Your task to perform on an android device: change the clock display to digital Image 0: 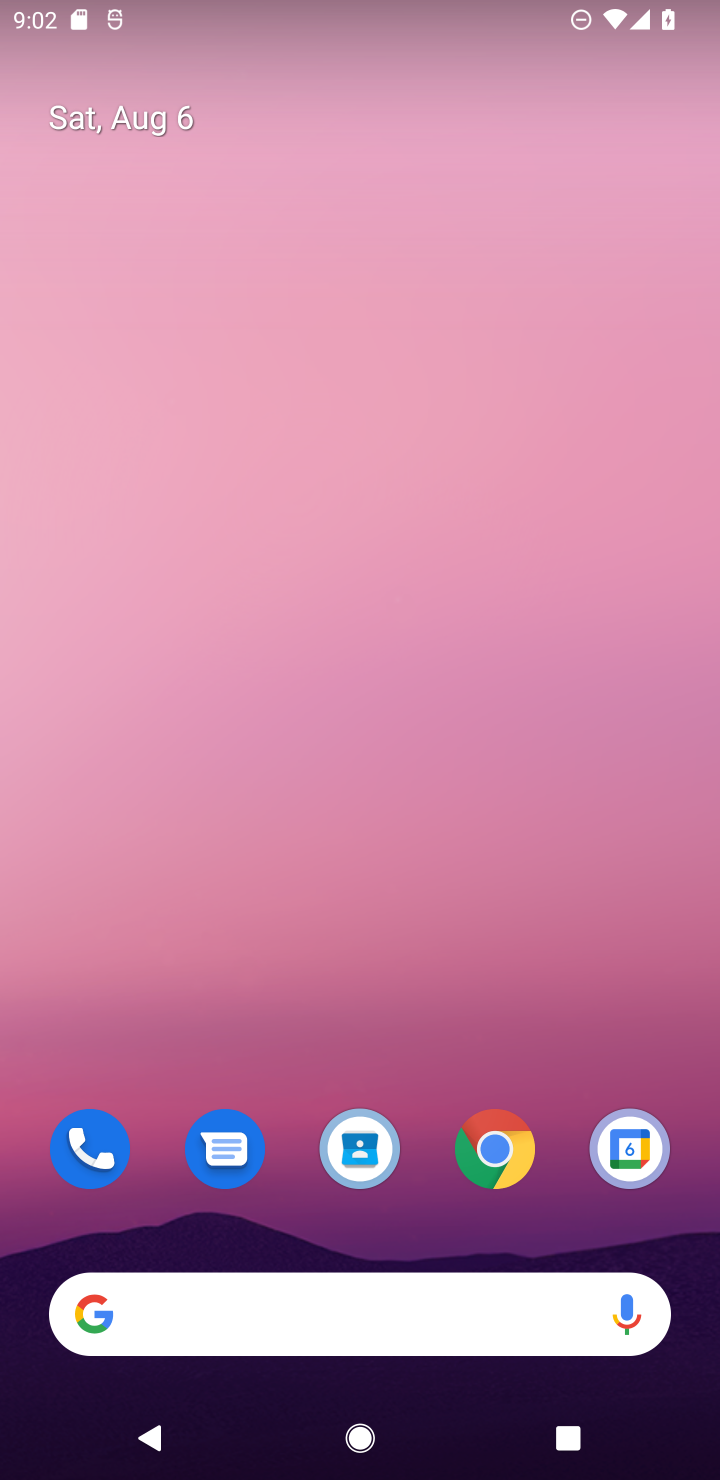
Step 0: drag from (332, 1080) to (311, 342)
Your task to perform on an android device: change the clock display to digital Image 1: 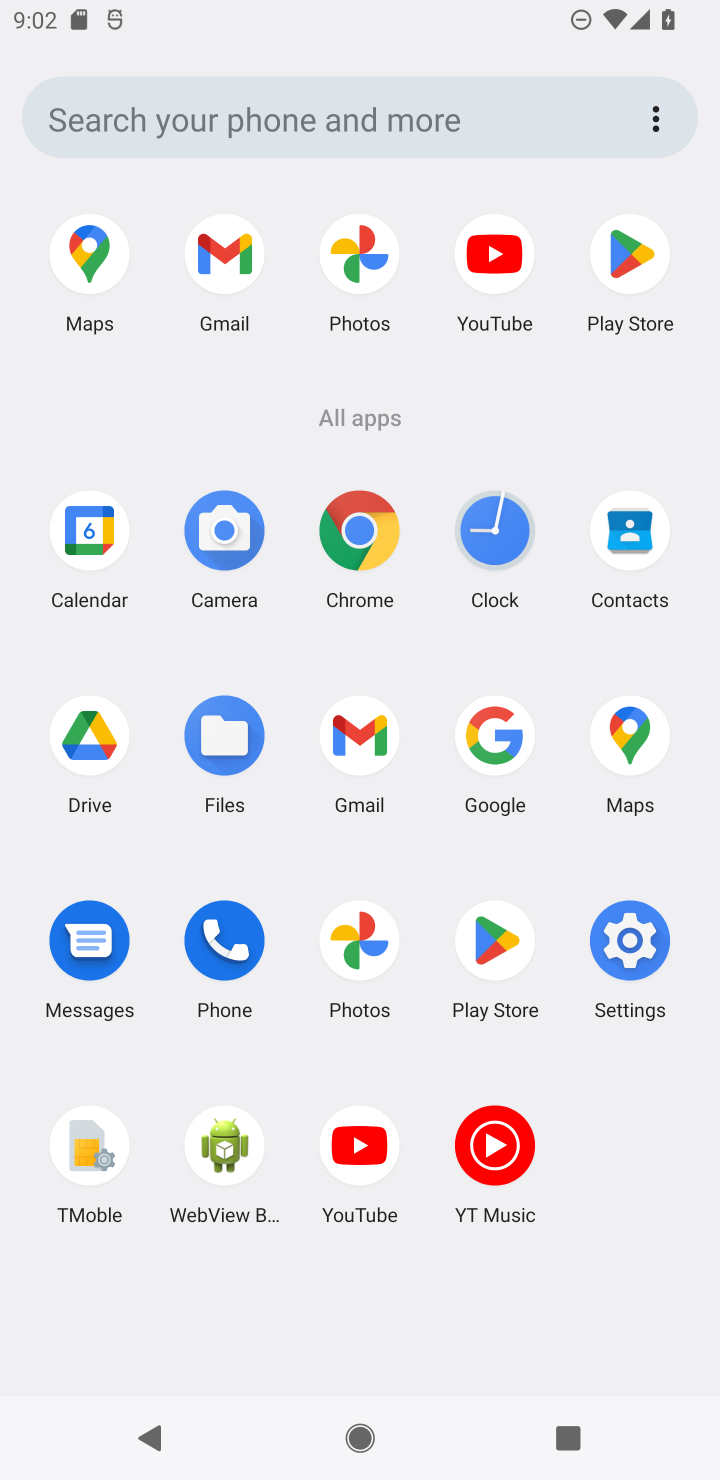
Step 1: click (497, 534)
Your task to perform on an android device: change the clock display to digital Image 2: 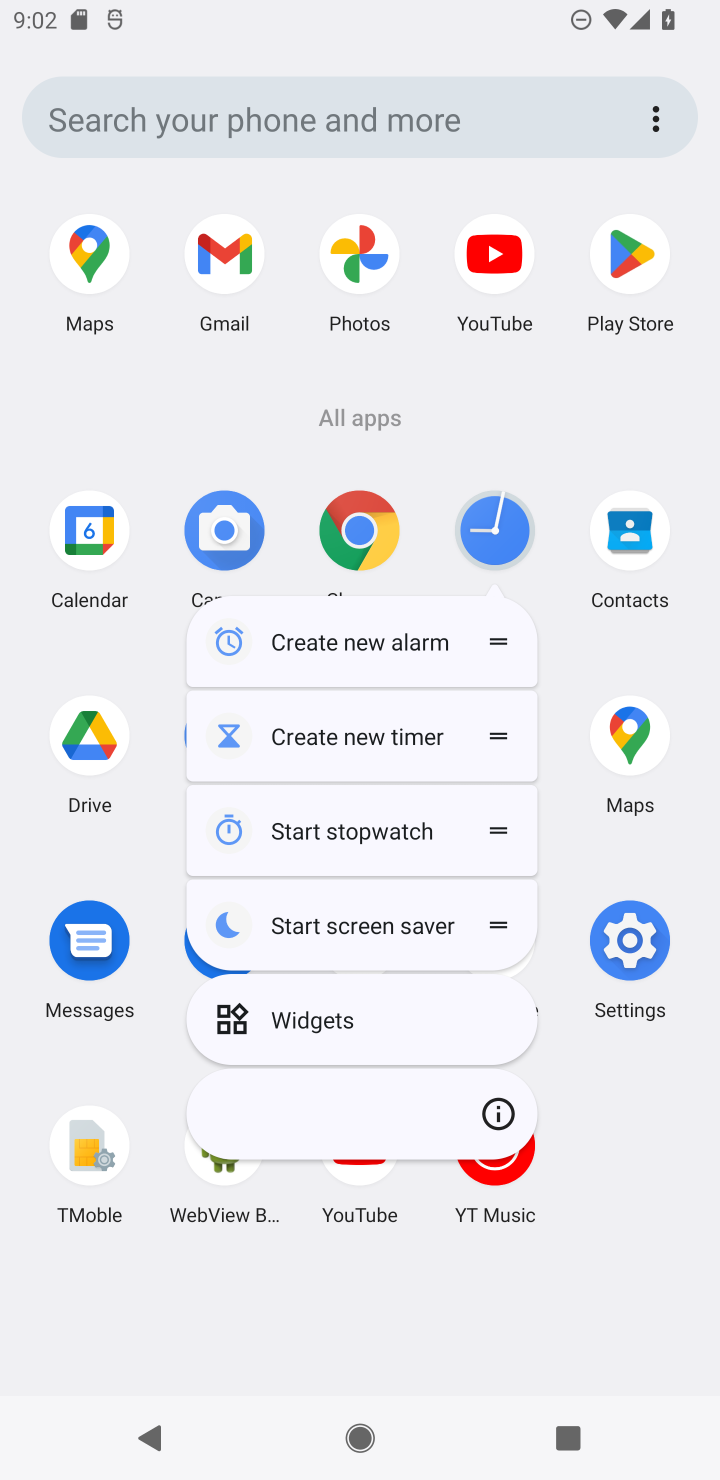
Step 2: click (497, 534)
Your task to perform on an android device: change the clock display to digital Image 3: 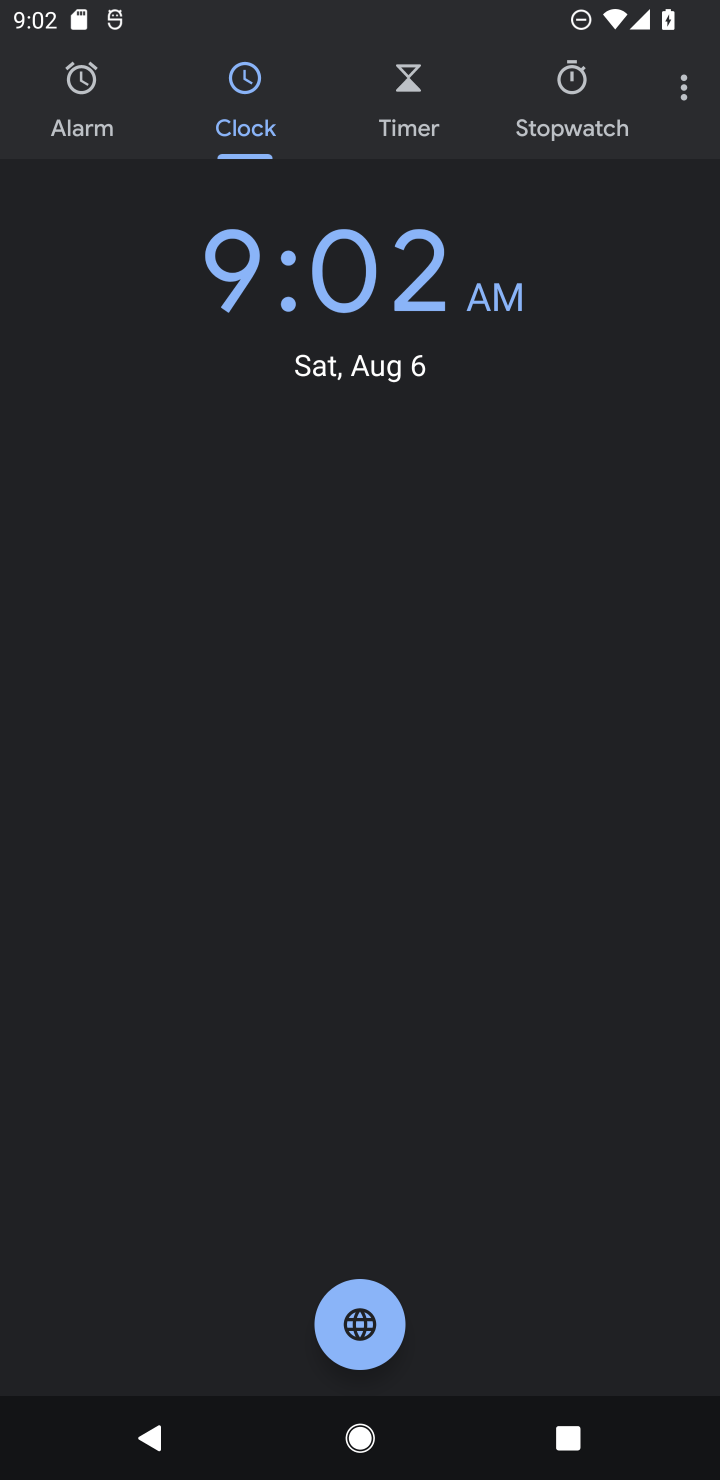
Step 3: click (680, 114)
Your task to perform on an android device: change the clock display to digital Image 4: 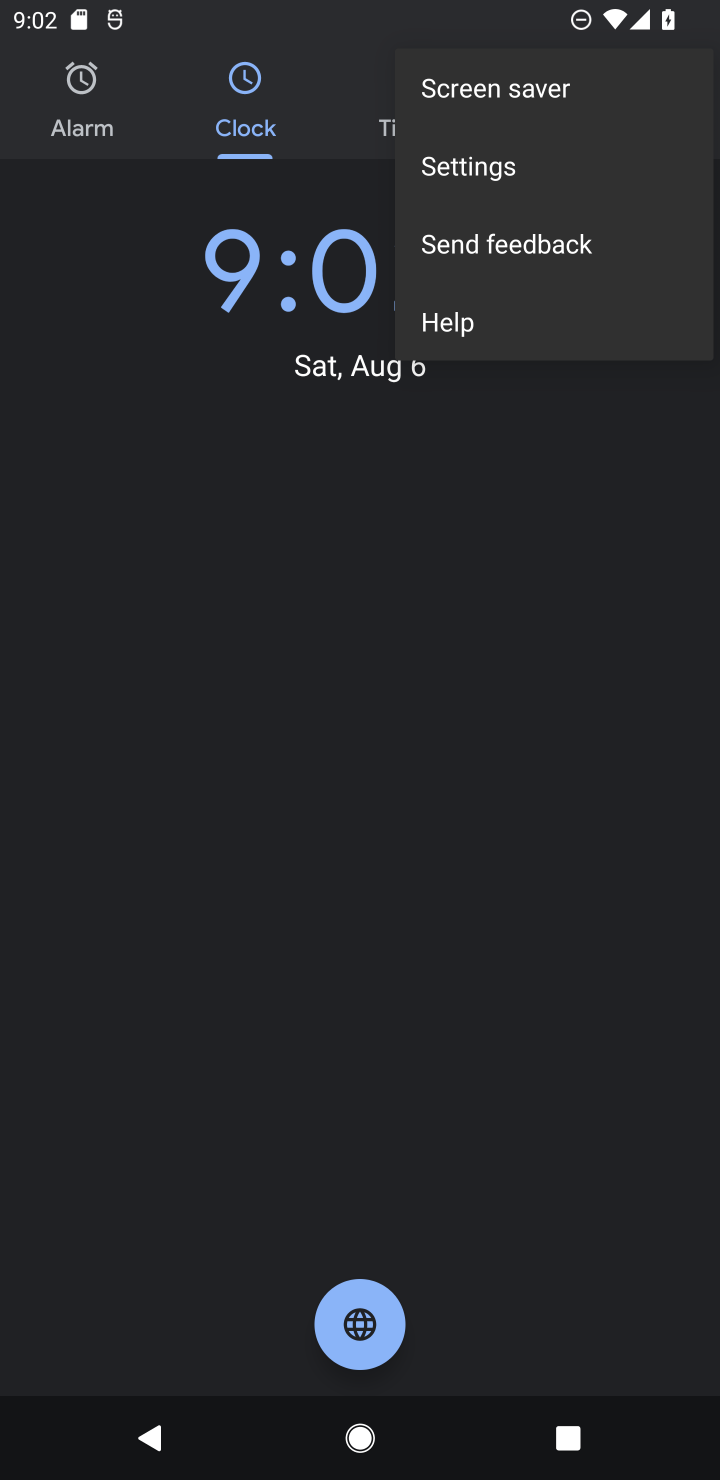
Step 4: click (484, 172)
Your task to perform on an android device: change the clock display to digital Image 5: 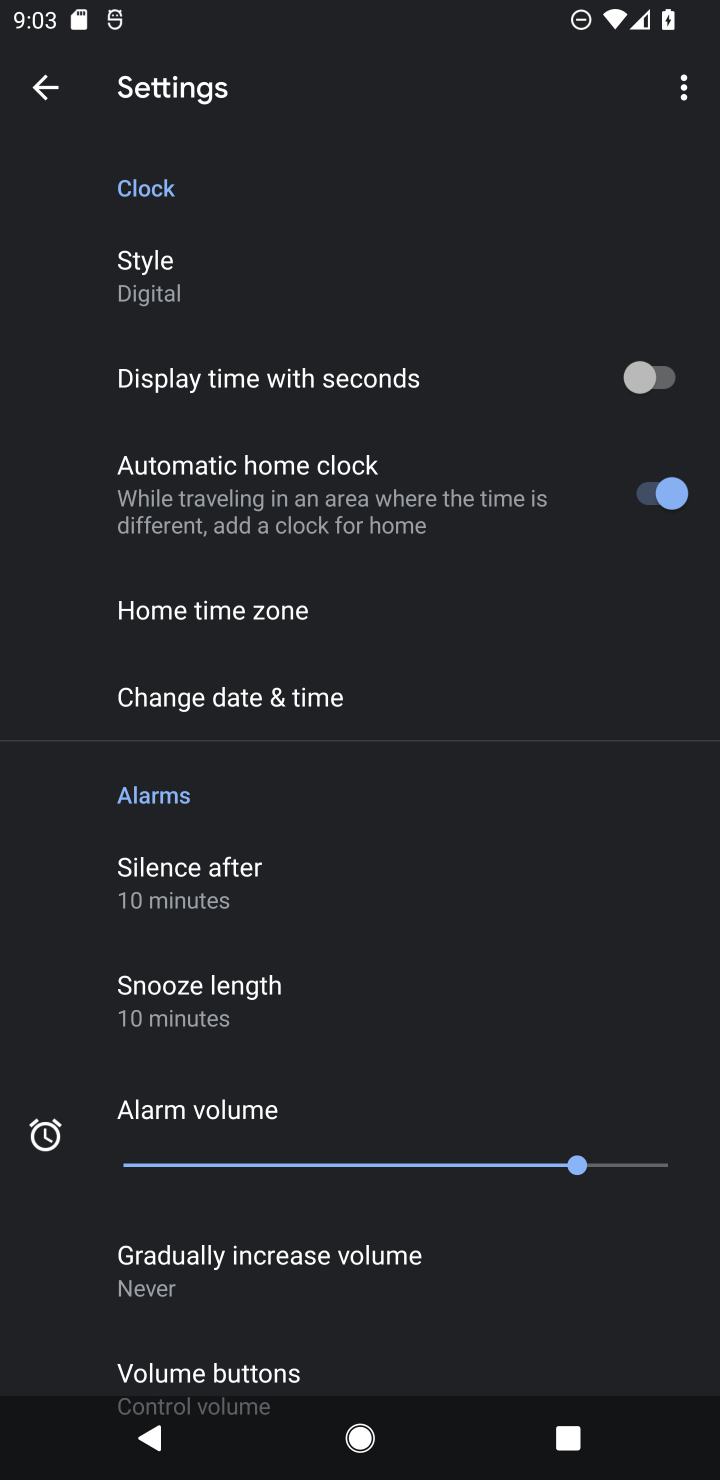
Step 5: click (164, 290)
Your task to perform on an android device: change the clock display to digital Image 6: 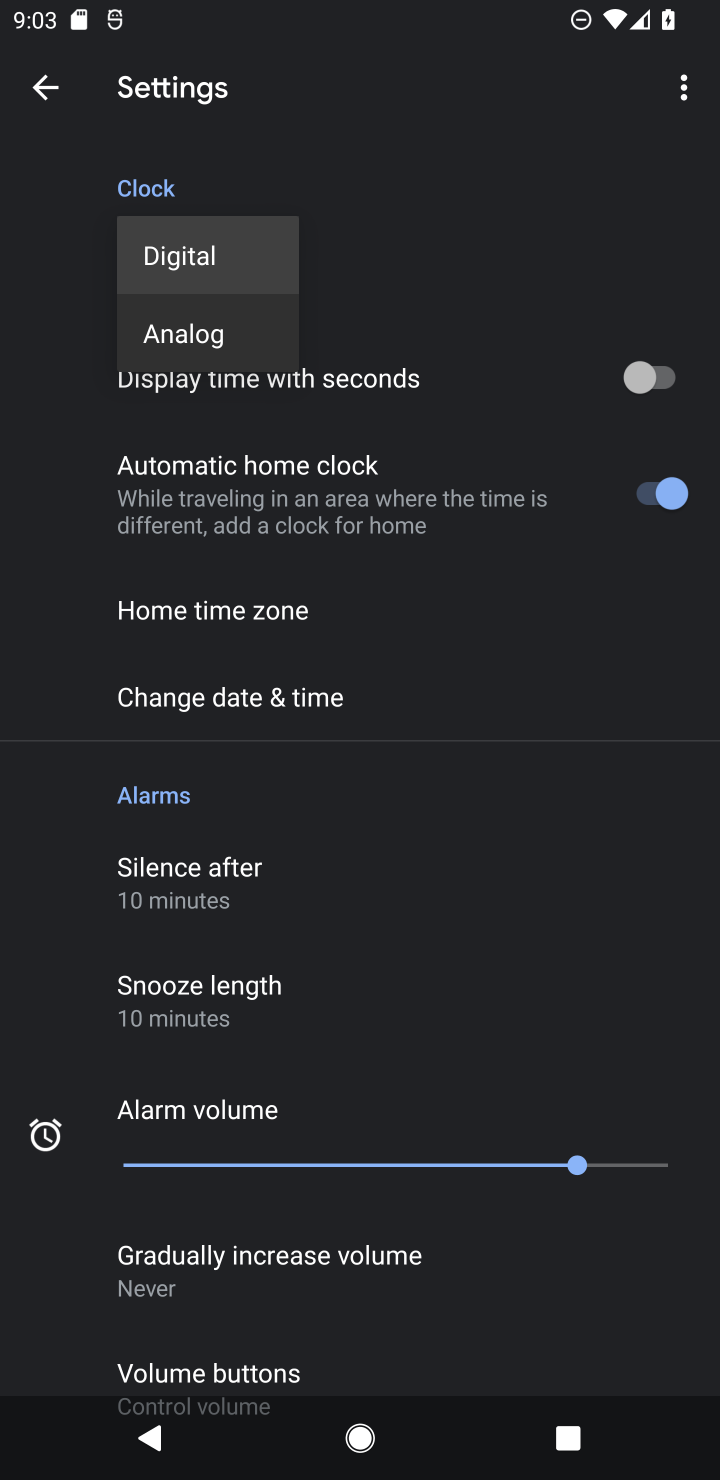
Step 6: click (187, 282)
Your task to perform on an android device: change the clock display to digital Image 7: 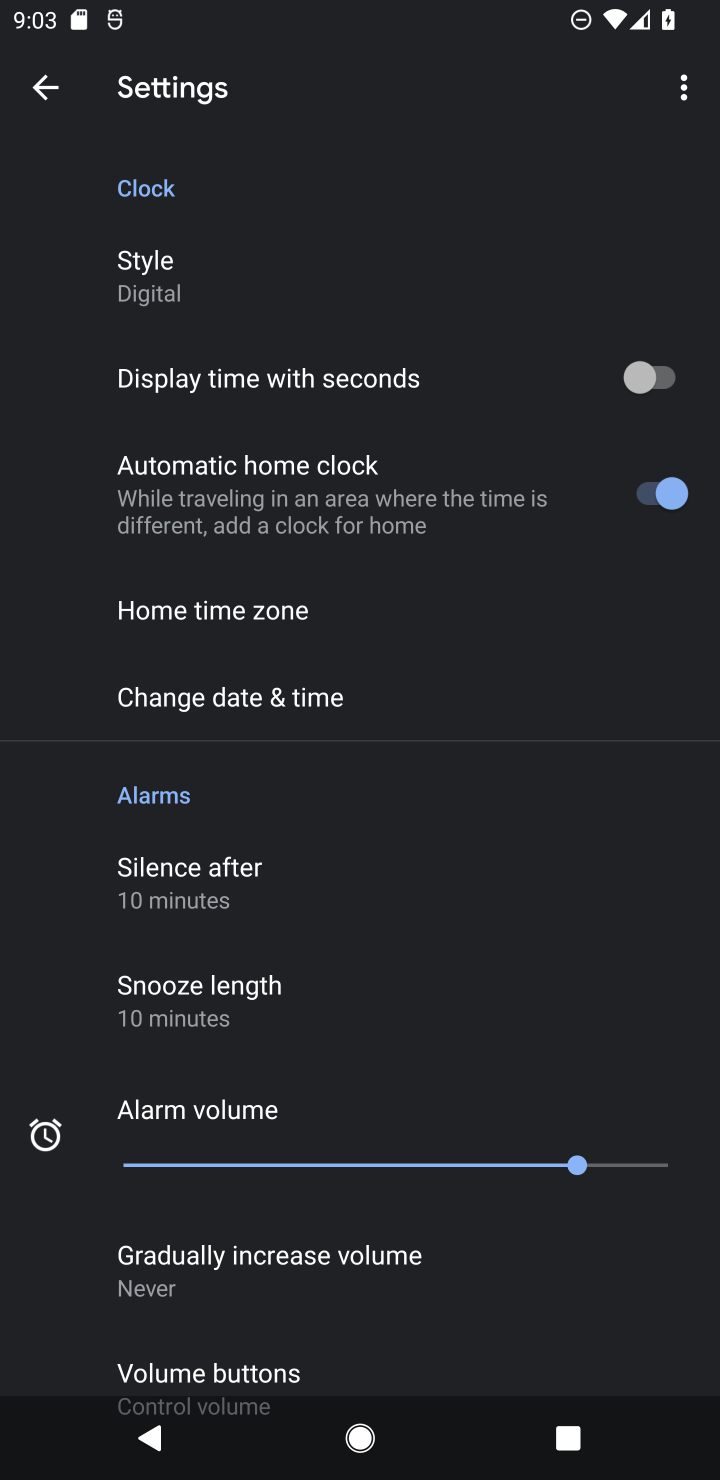
Step 7: task complete